Your task to perform on an android device: turn off airplane mode Image 0: 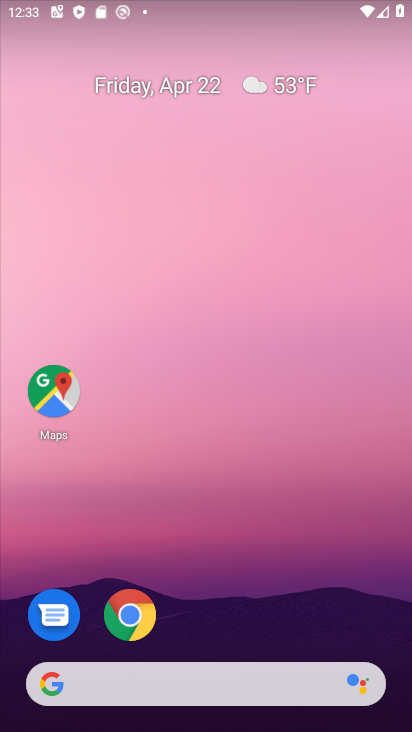
Step 0: drag from (284, 725) to (373, 0)
Your task to perform on an android device: turn off airplane mode Image 1: 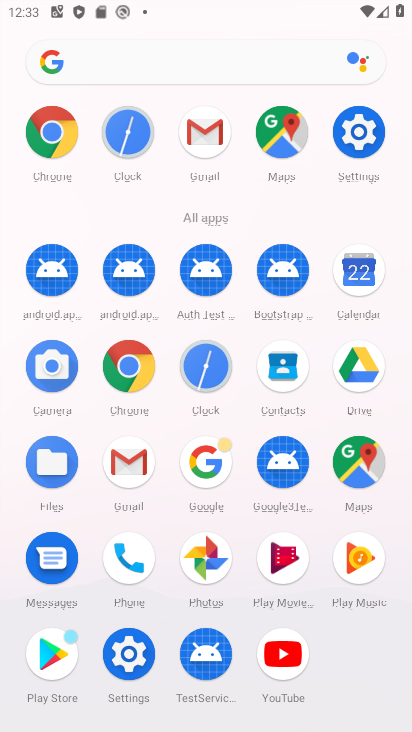
Step 1: click (359, 145)
Your task to perform on an android device: turn off airplane mode Image 2: 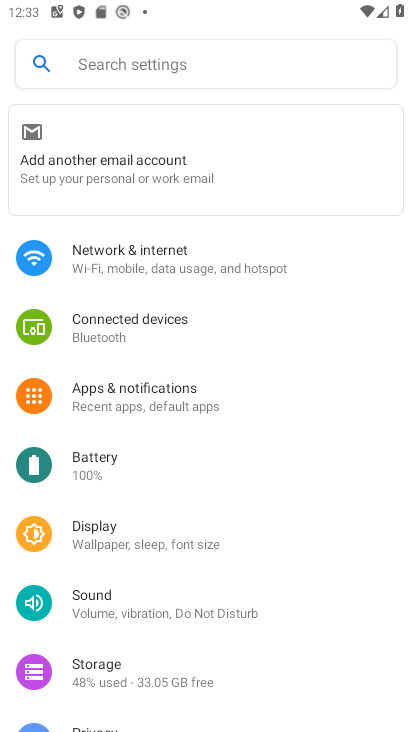
Step 2: click (200, 263)
Your task to perform on an android device: turn off airplane mode Image 3: 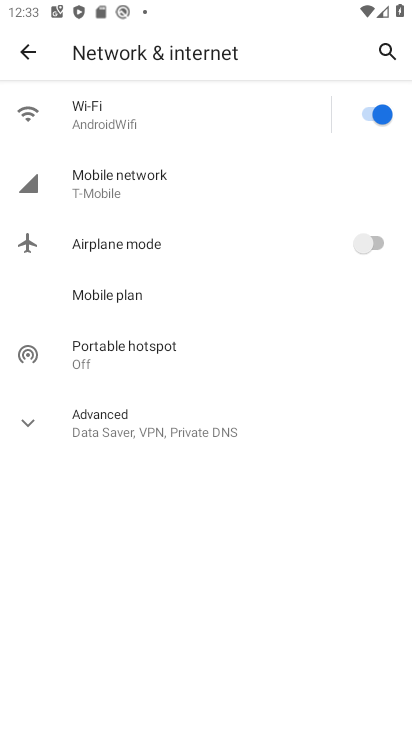
Step 3: task complete